Your task to perform on an android device: toggle improve location accuracy Image 0: 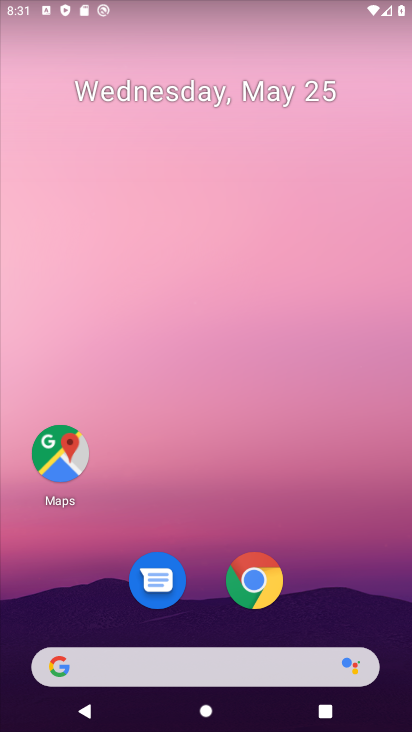
Step 0: drag from (13, 697) to (301, 113)
Your task to perform on an android device: toggle improve location accuracy Image 1: 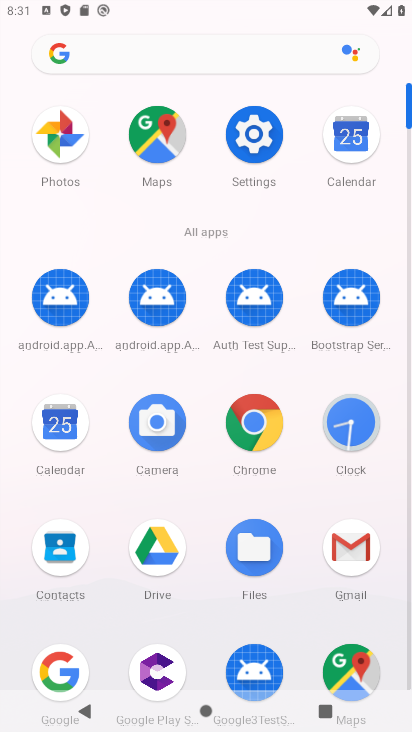
Step 1: click (260, 130)
Your task to perform on an android device: toggle improve location accuracy Image 2: 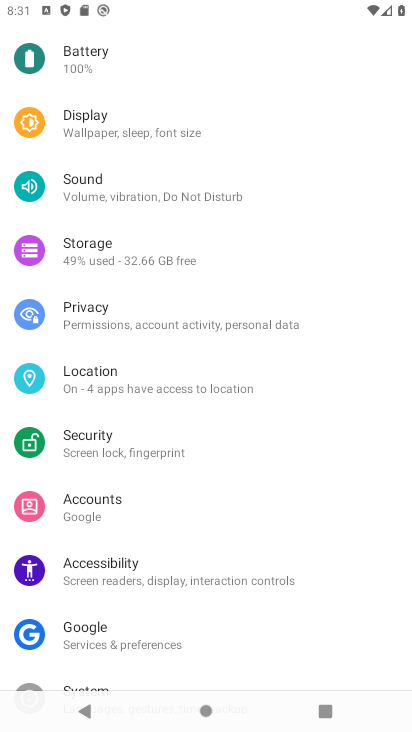
Step 2: click (65, 384)
Your task to perform on an android device: toggle improve location accuracy Image 3: 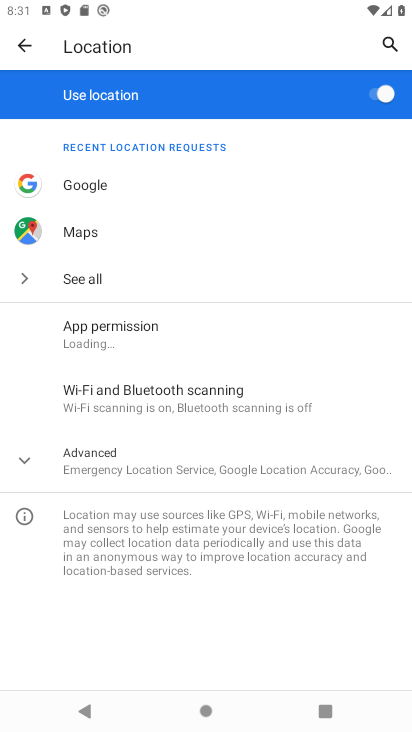
Step 3: click (184, 465)
Your task to perform on an android device: toggle improve location accuracy Image 4: 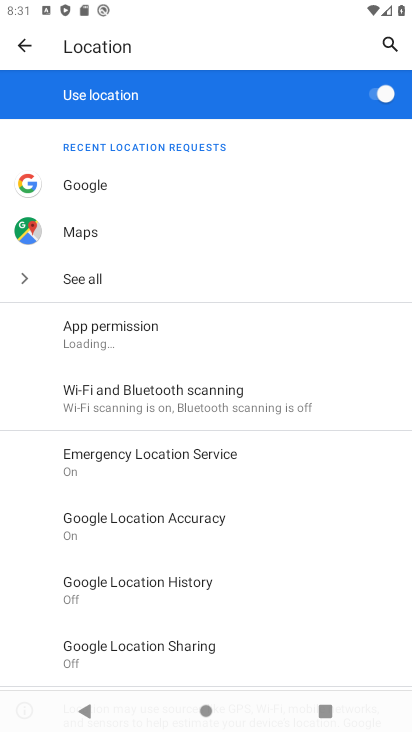
Step 4: click (97, 526)
Your task to perform on an android device: toggle improve location accuracy Image 5: 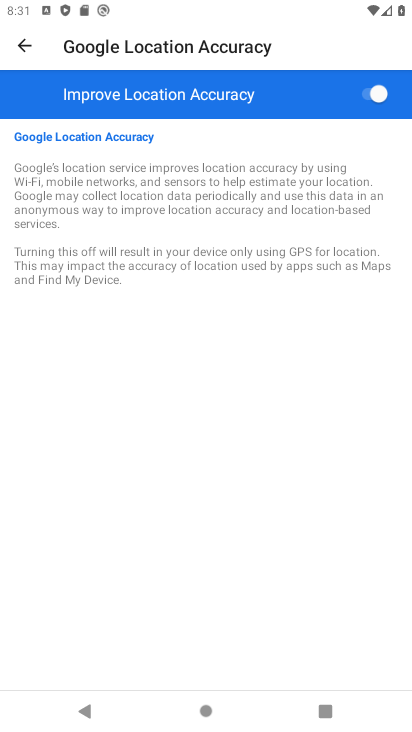
Step 5: click (377, 94)
Your task to perform on an android device: toggle improve location accuracy Image 6: 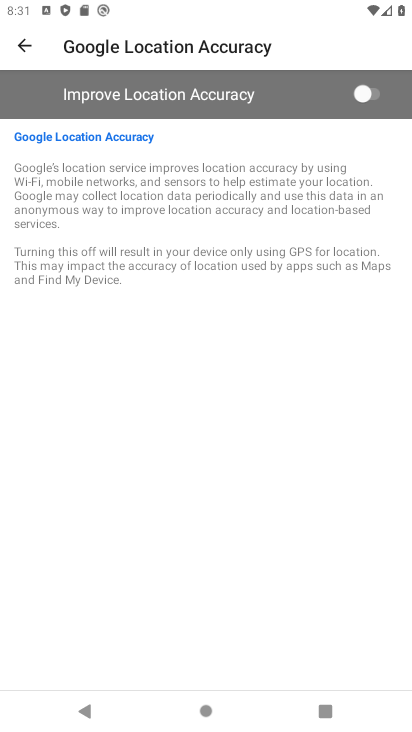
Step 6: task complete